Your task to perform on an android device: see tabs open on other devices in the chrome app Image 0: 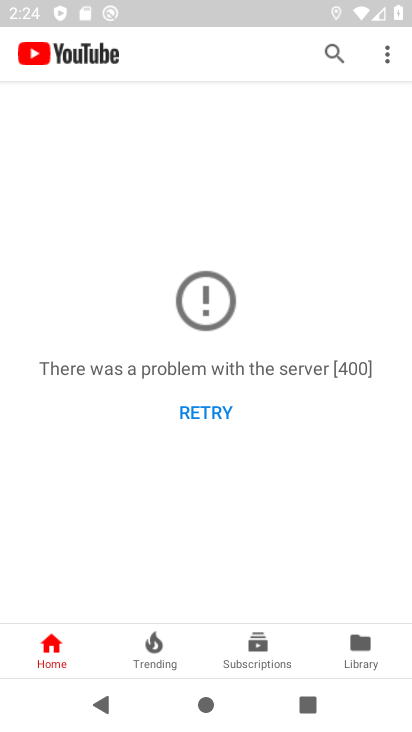
Step 0: press back button
Your task to perform on an android device: see tabs open on other devices in the chrome app Image 1: 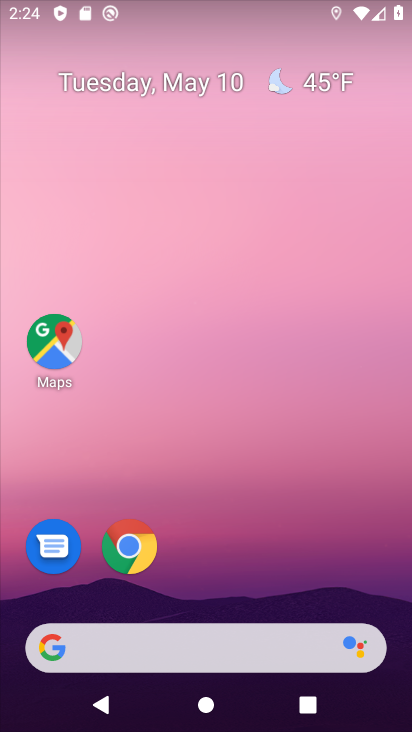
Step 1: drag from (252, 548) to (150, 0)
Your task to perform on an android device: see tabs open on other devices in the chrome app Image 2: 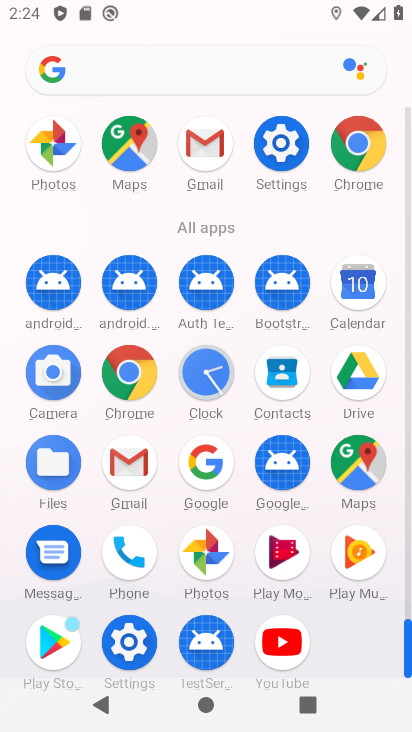
Step 2: click (127, 367)
Your task to perform on an android device: see tabs open on other devices in the chrome app Image 3: 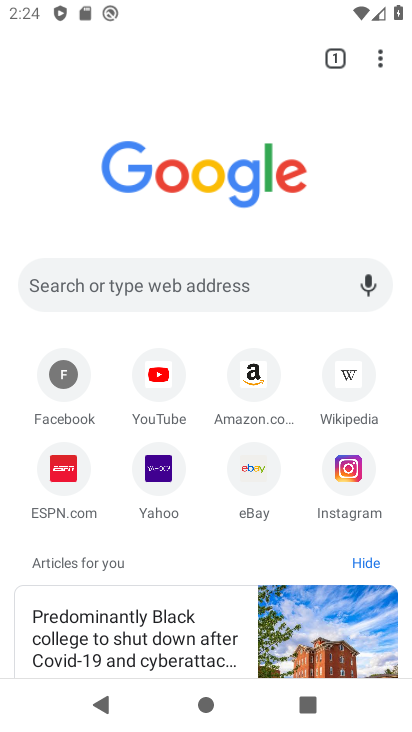
Step 3: task complete